Your task to perform on an android device: set an alarm Image 0: 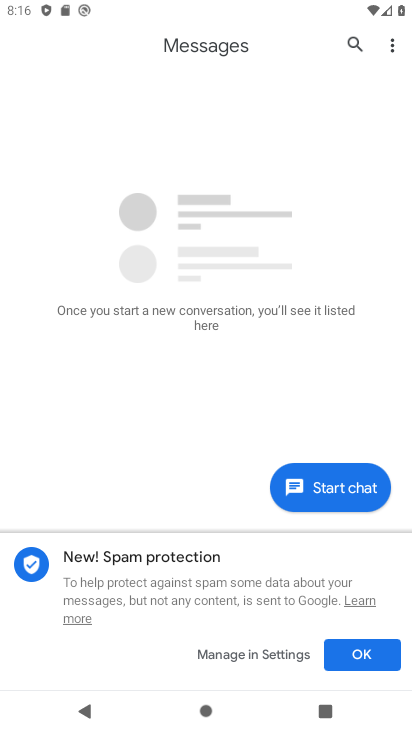
Step 0: press home button
Your task to perform on an android device: set an alarm Image 1: 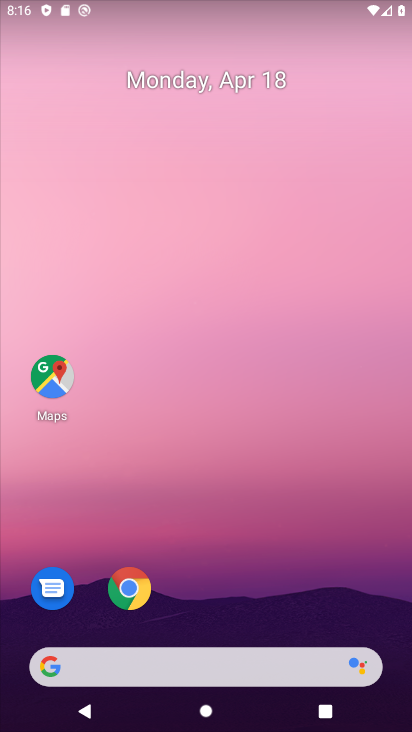
Step 1: drag from (250, 580) to (260, 12)
Your task to perform on an android device: set an alarm Image 2: 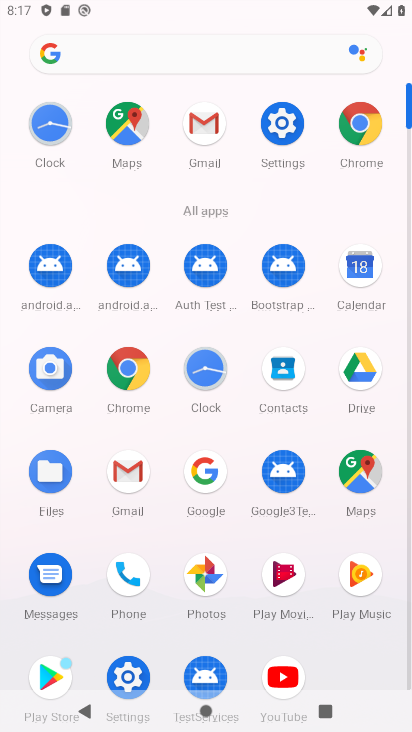
Step 2: click (59, 117)
Your task to perform on an android device: set an alarm Image 3: 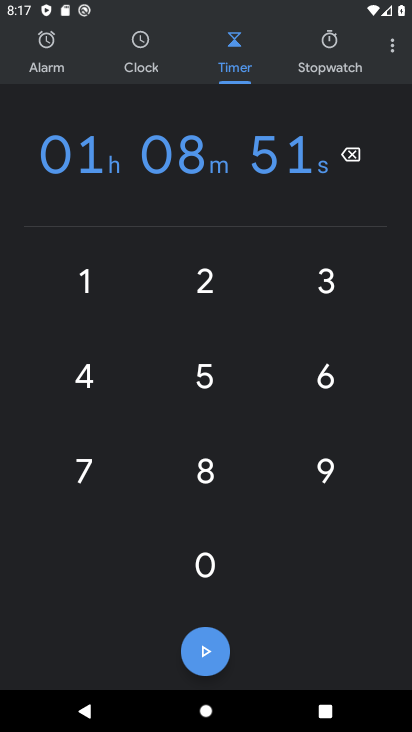
Step 3: click (393, 48)
Your task to perform on an android device: set an alarm Image 4: 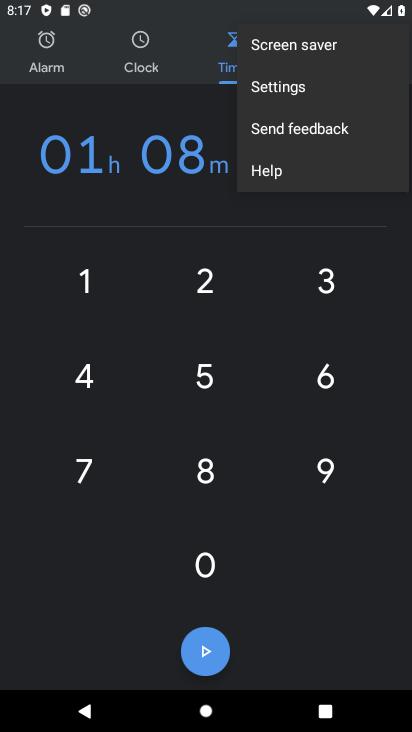
Step 4: click (264, 85)
Your task to perform on an android device: set an alarm Image 5: 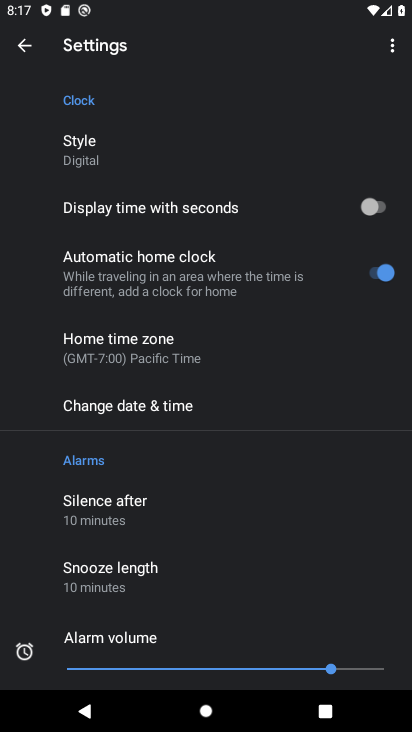
Step 5: click (25, 49)
Your task to perform on an android device: set an alarm Image 6: 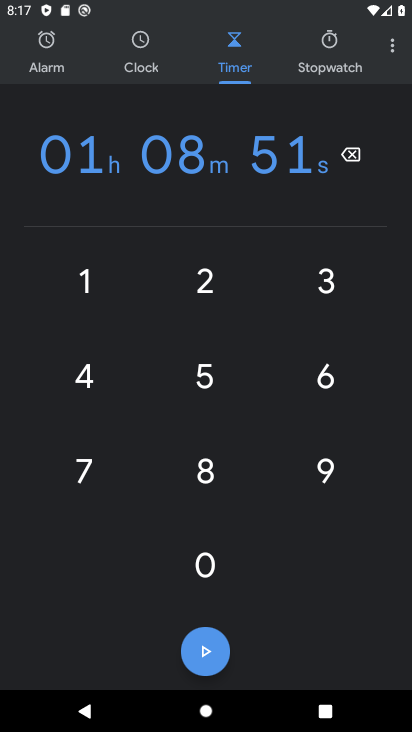
Step 6: click (44, 57)
Your task to perform on an android device: set an alarm Image 7: 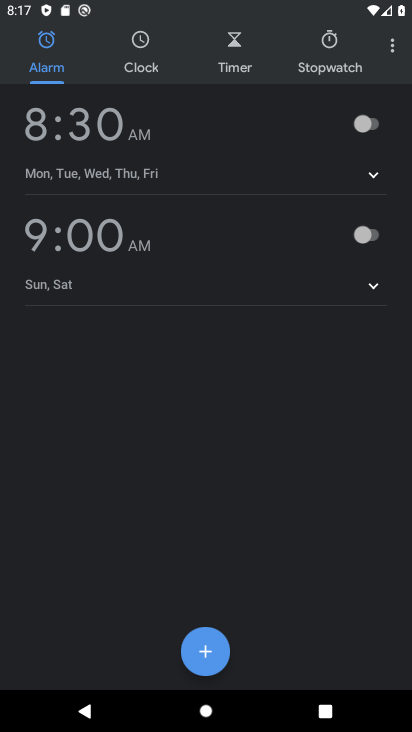
Step 7: click (205, 649)
Your task to perform on an android device: set an alarm Image 8: 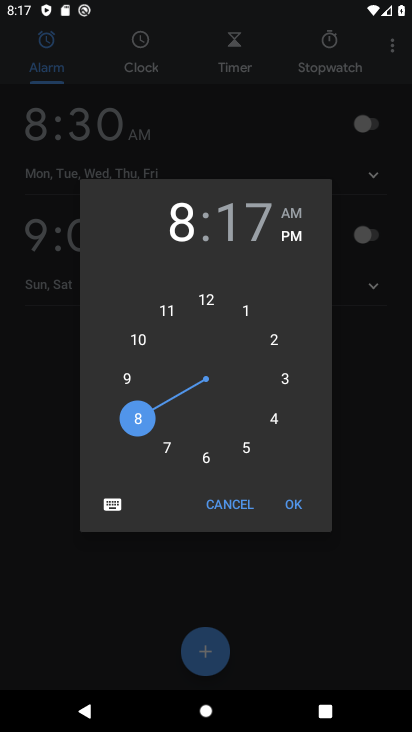
Step 8: click (284, 501)
Your task to perform on an android device: set an alarm Image 9: 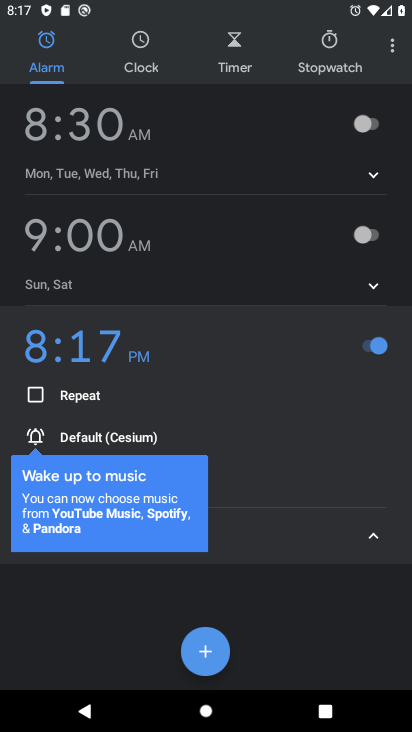
Step 9: task complete